Your task to perform on an android device: Go to battery settings Image 0: 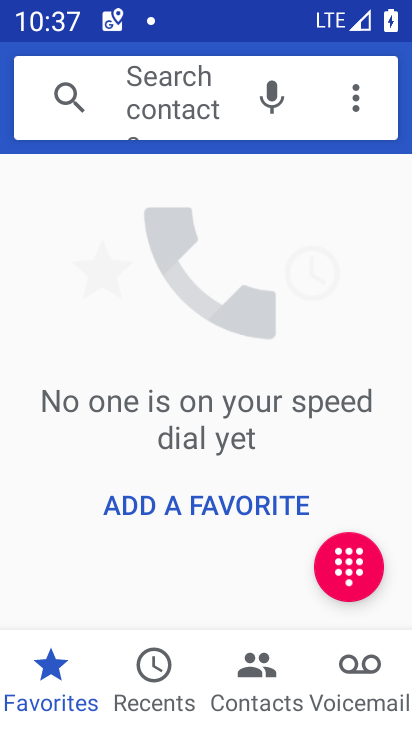
Step 0: press home button
Your task to perform on an android device: Go to battery settings Image 1: 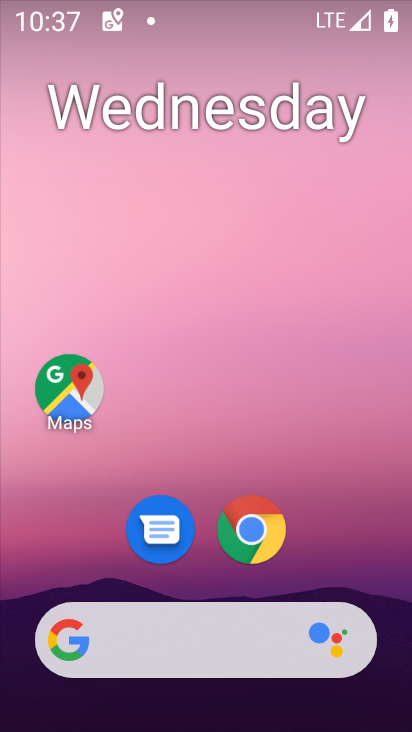
Step 1: drag from (392, 628) to (293, 78)
Your task to perform on an android device: Go to battery settings Image 2: 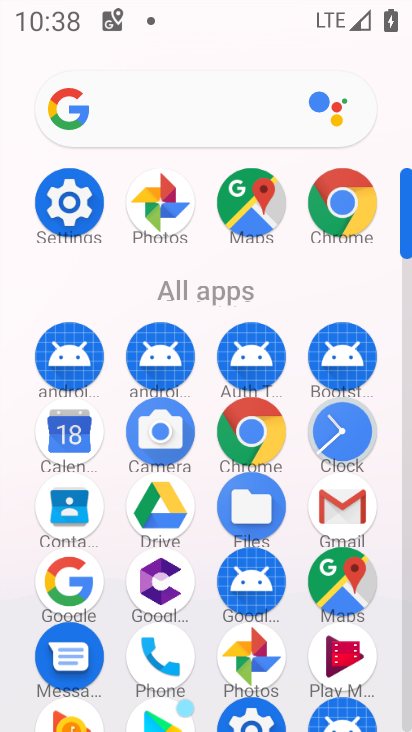
Step 2: click (404, 673)
Your task to perform on an android device: Go to battery settings Image 3: 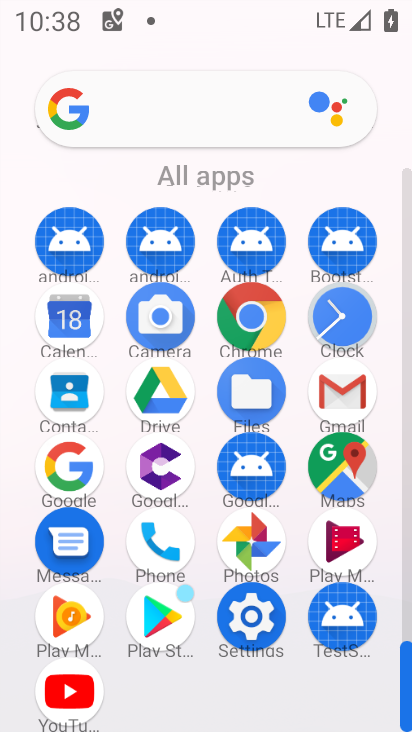
Step 3: click (249, 615)
Your task to perform on an android device: Go to battery settings Image 4: 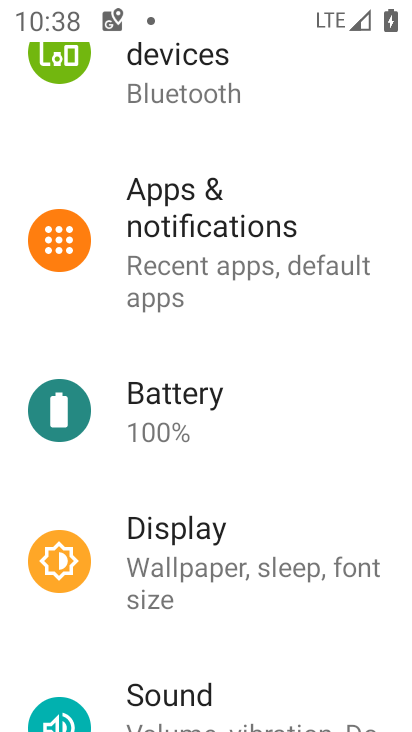
Step 4: click (174, 410)
Your task to perform on an android device: Go to battery settings Image 5: 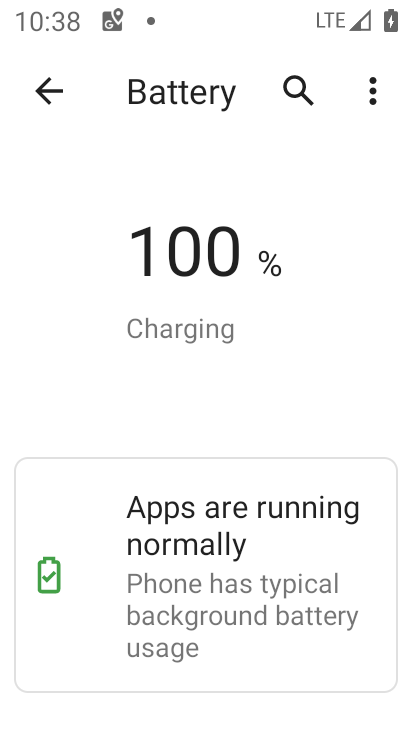
Step 5: task complete